Your task to perform on an android device: turn on priority inbox in the gmail app Image 0: 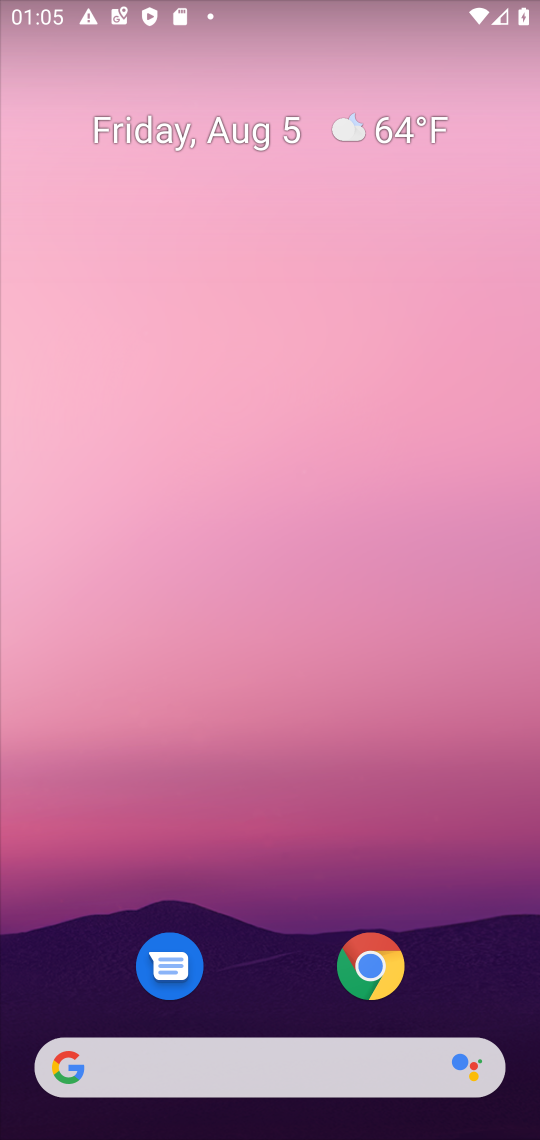
Step 0: drag from (348, 774) to (377, 0)
Your task to perform on an android device: turn on priority inbox in the gmail app Image 1: 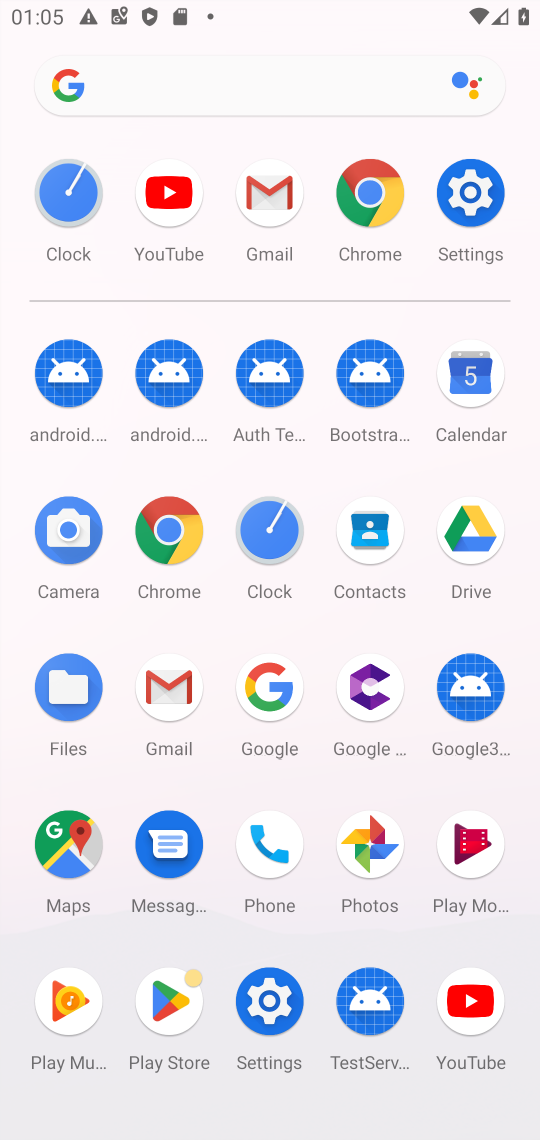
Step 1: click (268, 208)
Your task to perform on an android device: turn on priority inbox in the gmail app Image 2: 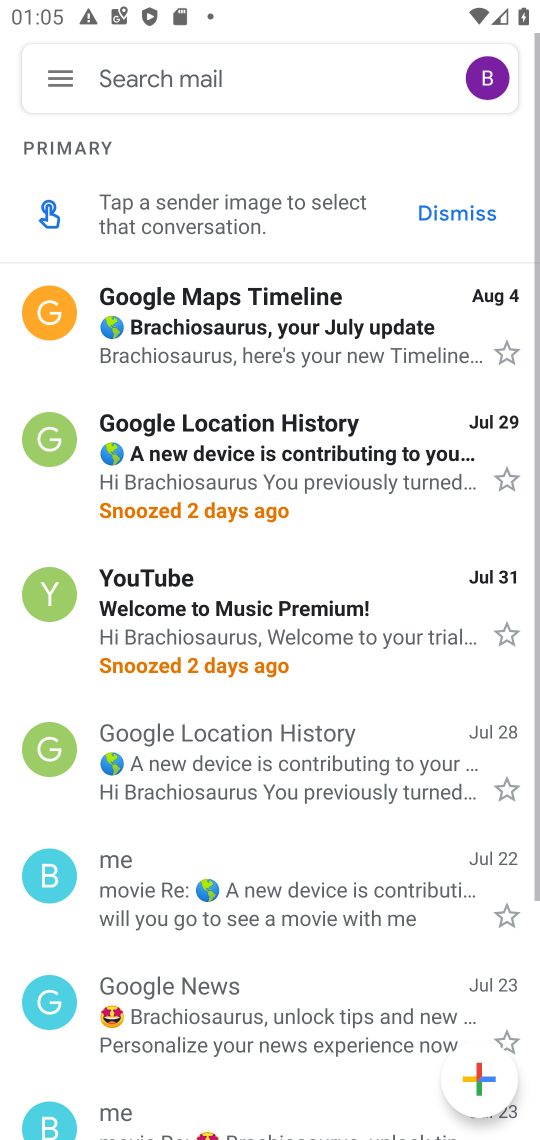
Step 2: click (62, 82)
Your task to perform on an android device: turn on priority inbox in the gmail app Image 3: 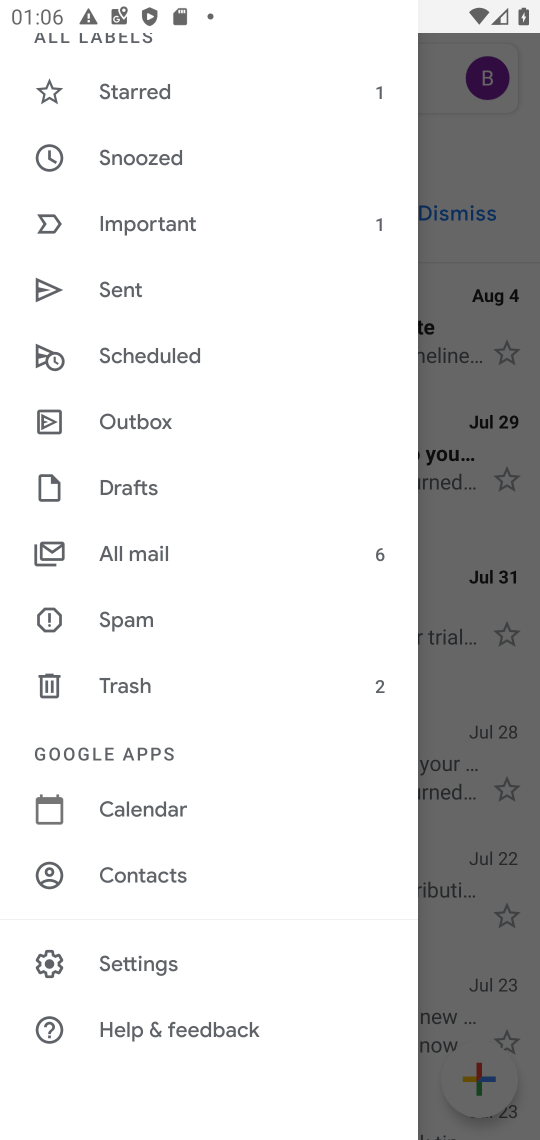
Step 3: click (158, 948)
Your task to perform on an android device: turn on priority inbox in the gmail app Image 4: 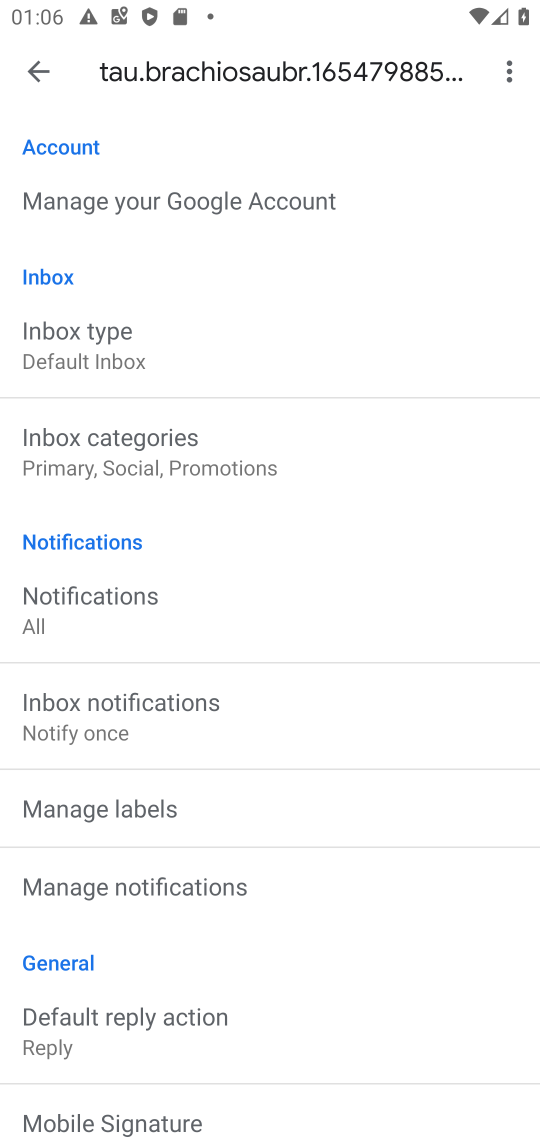
Step 4: click (89, 336)
Your task to perform on an android device: turn on priority inbox in the gmail app Image 5: 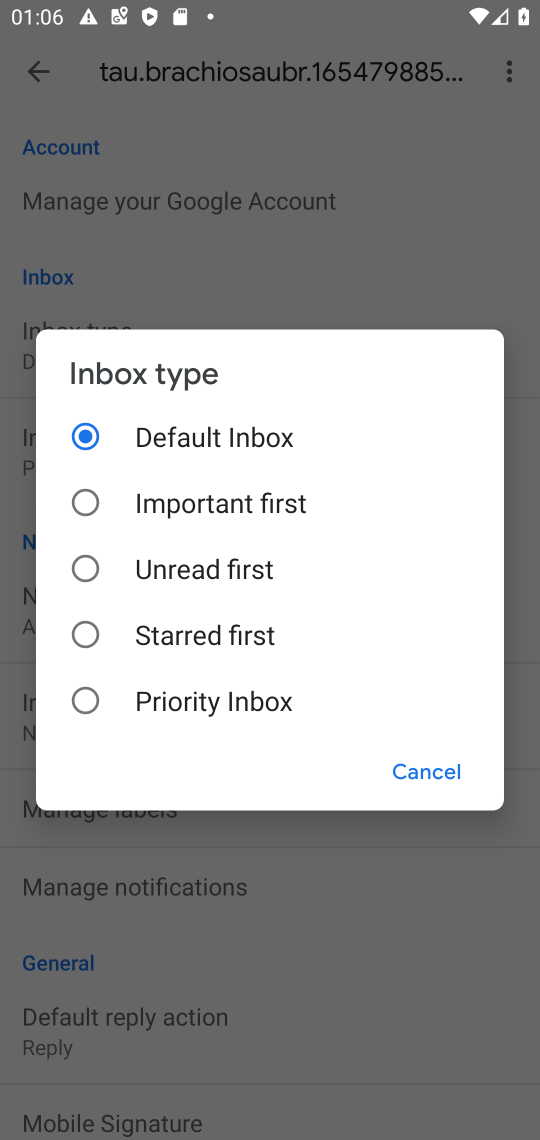
Step 5: click (73, 692)
Your task to perform on an android device: turn on priority inbox in the gmail app Image 6: 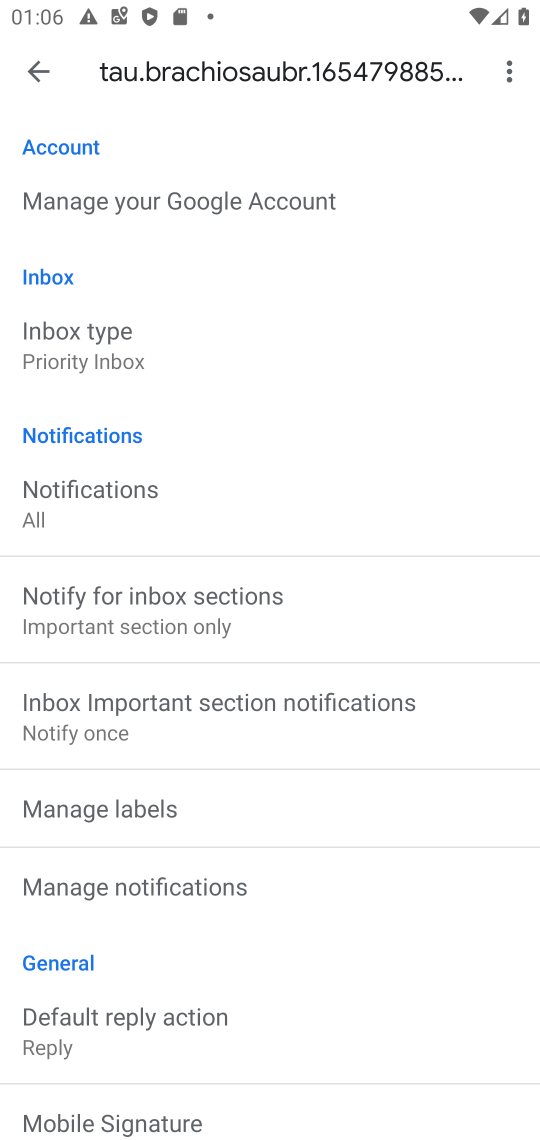
Step 6: task complete